Your task to perform on an android device: Open Yahoo.com Image 0: 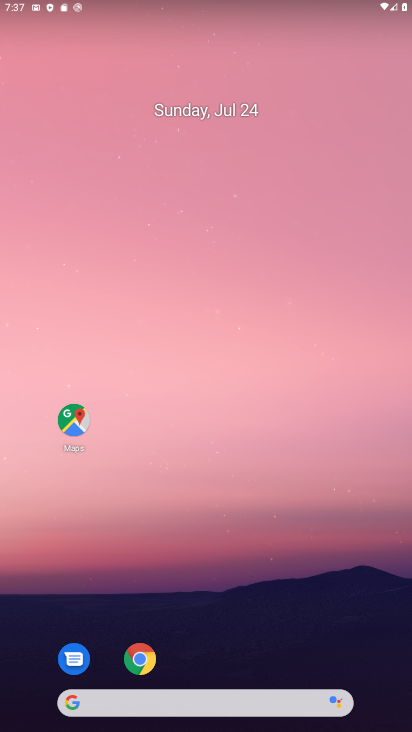
Step 0: drag from (221, 657) to (215, 100)
Your task to perform on an android device: Open Yahoo.com Image 1: 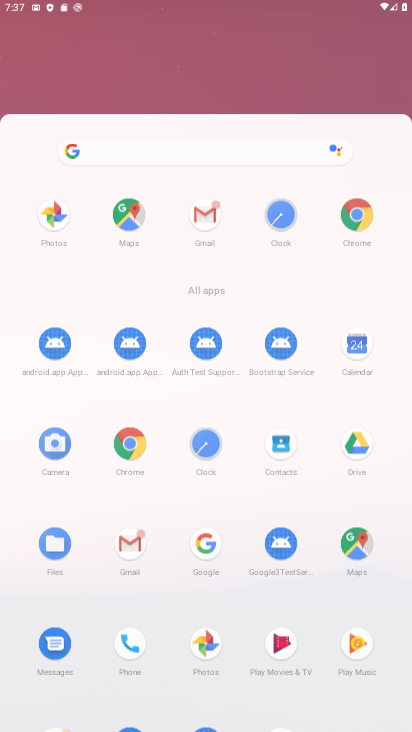
Step 1: drag from (176, 680) to (214, 151)
Your task to perform on an android device: Open Yahoo.com Image 2: 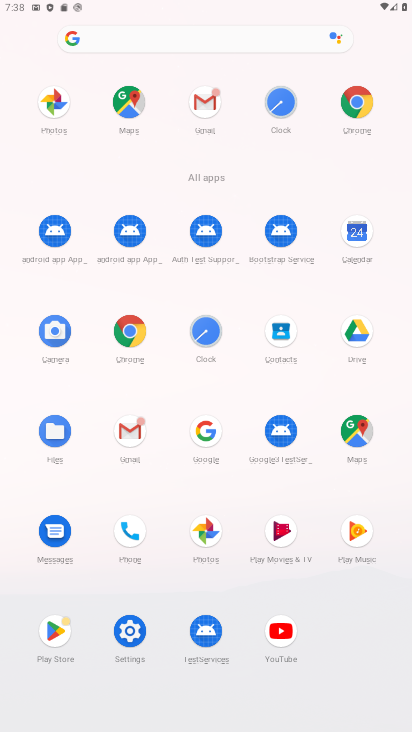
Step 2: click (135, 330)
Your task to perform on an android device: Open Yahoo.com Image 3: 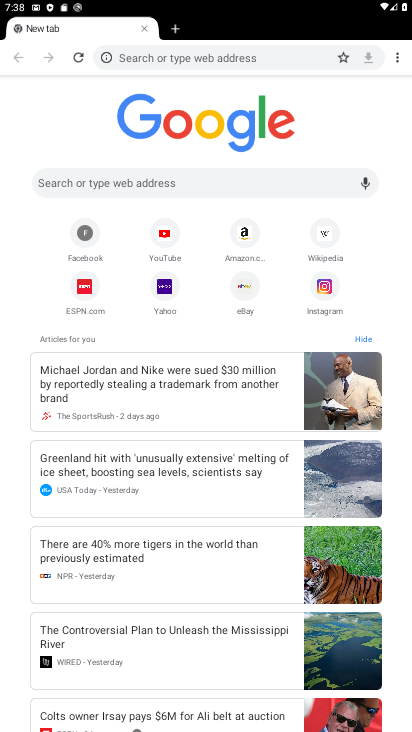
Step 3: click (158, 294)
Your task to perform on an android device: Open Yahoo.com Image 4: 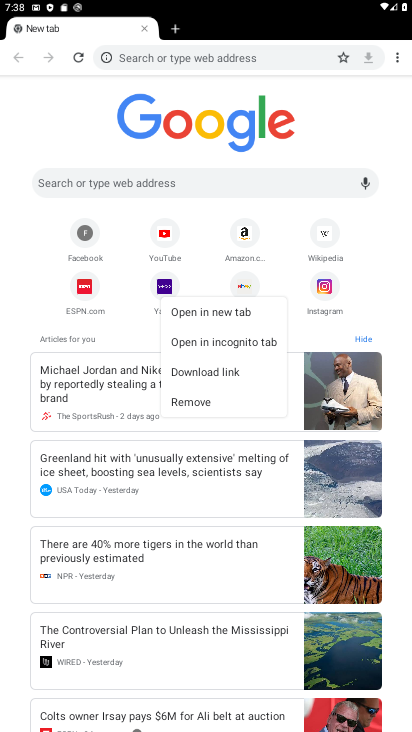
Step 4: click (158, 294)
Your task to perform on an android device: Open Yahoo.com Image 5: 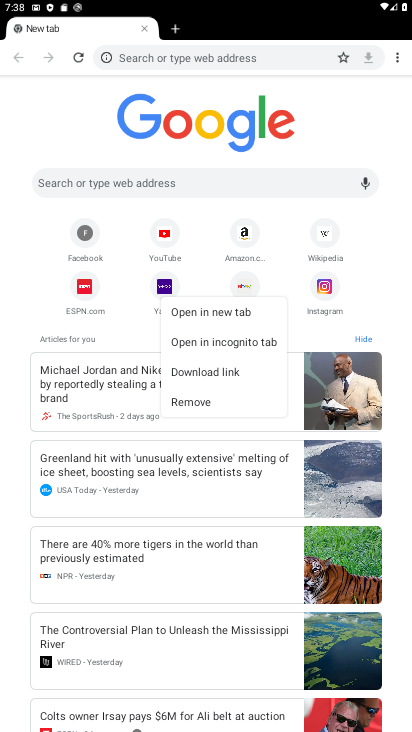
Step 5: click (158, 294)
Your task to perform on an android device: Open Yahoo.com Image 6: 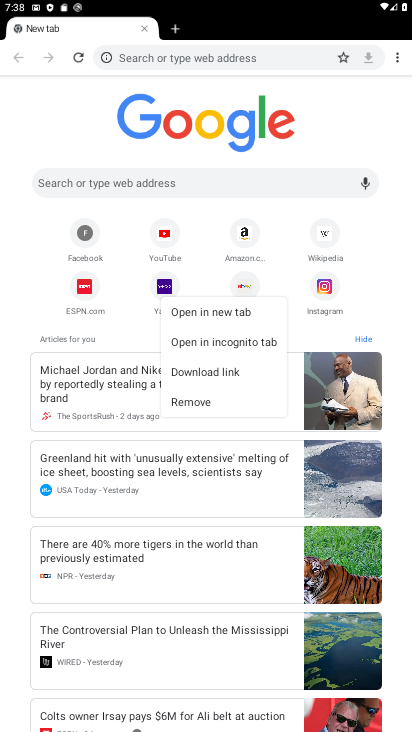
Step 6: click (163, 290)
Your task to perform on an android device: Open Yahoo.com Image 7: 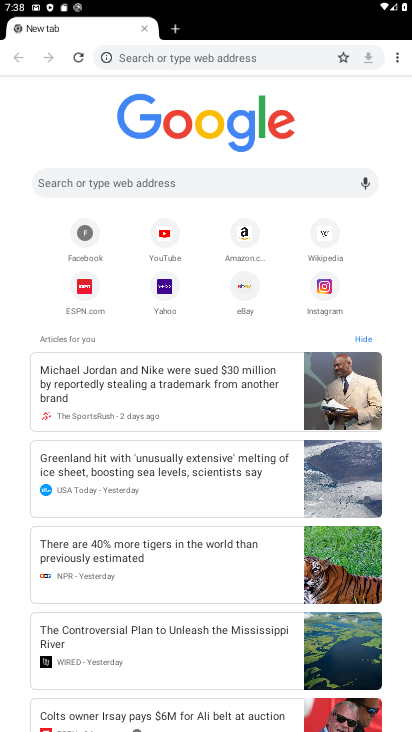
Step 7: click (163, 290)
Your task to perform on an android device: Open Yahoo.com Image 8: 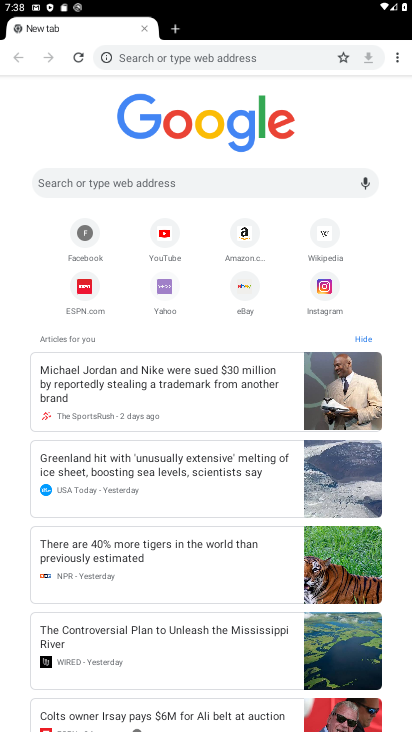
Step 8: click (163, 290)
Your task to perform on an android device: Open Yahoo.com Image 9: 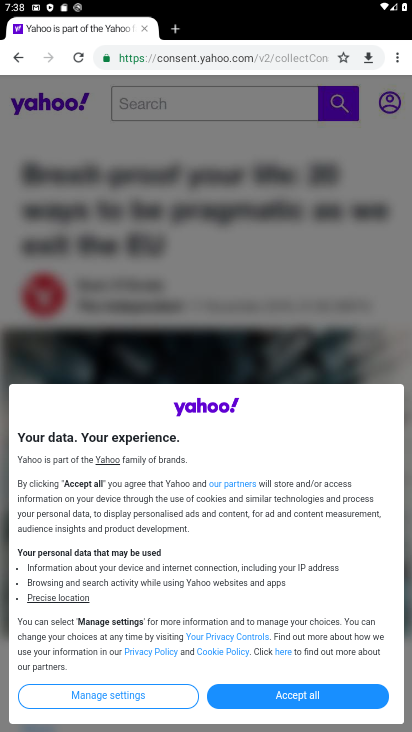
Step 9: task complete